Your task to perform on an android device: Open internet settings Image 0: 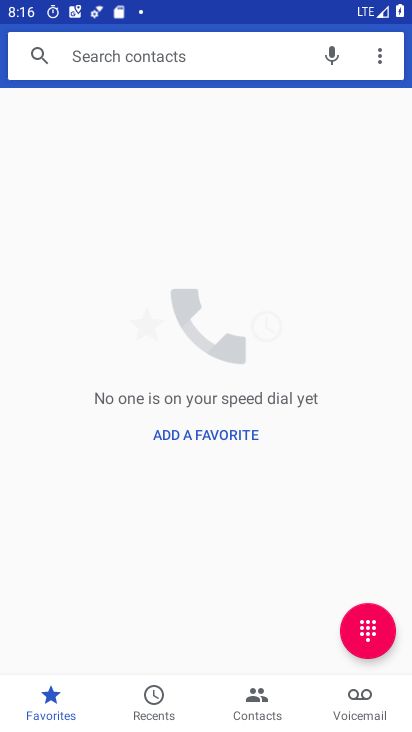
Step 0: press home button
Your task to perform on an android device: Open internet settings Image 1: 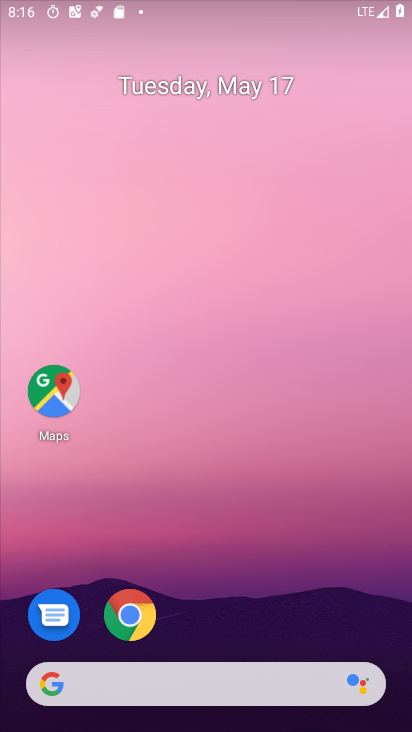
Step 1: drag from (282, 508) to (319, 181)
Your task to perform on an android device: Open internet settings Image 2: 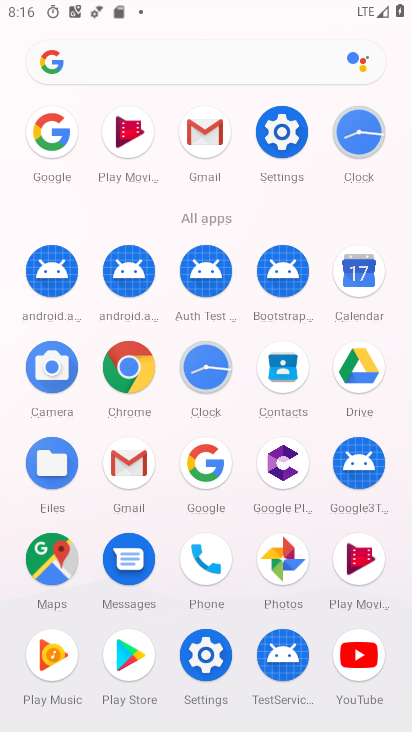
Step 2: click (283, 141)
Your task to perform on an android device: Open internet settings Image 3: 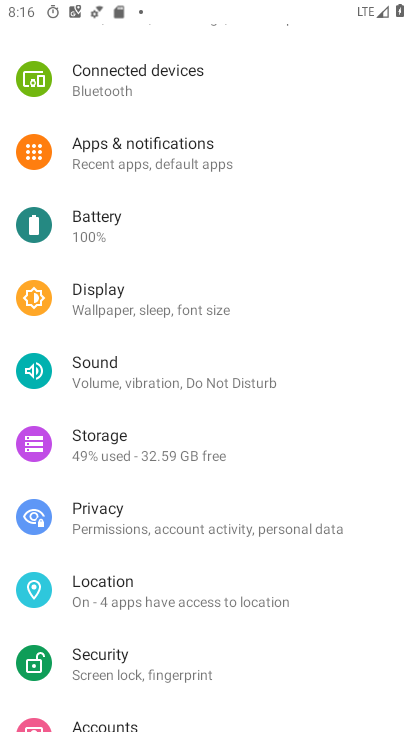
Step 3: drag from (175, 92) to (186, 357)
Your task to perform on an android device: Open internet settings Image 4: 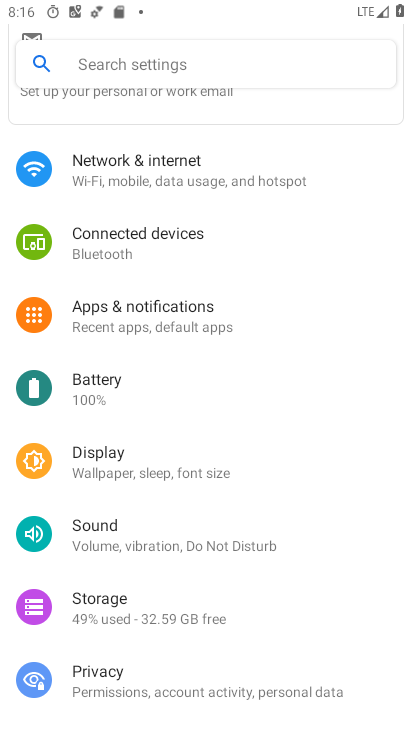
Step 4: click (136, 186)
Your task to perform on an android device: Open internet settings Image 5: 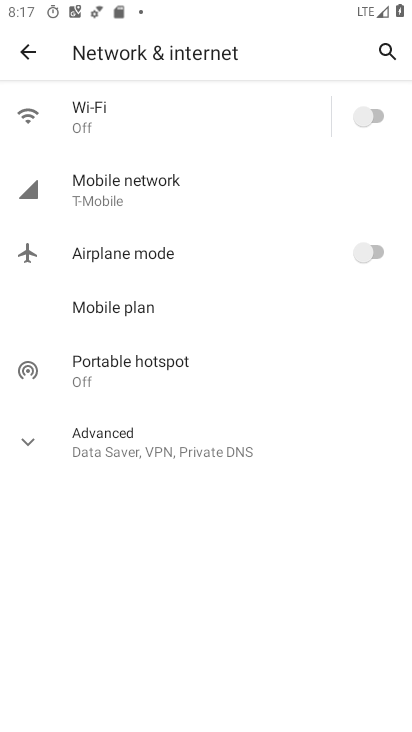
Step 5: task complete